Your task to perform on an android device: turn on javascript in the chrome app Image 0: 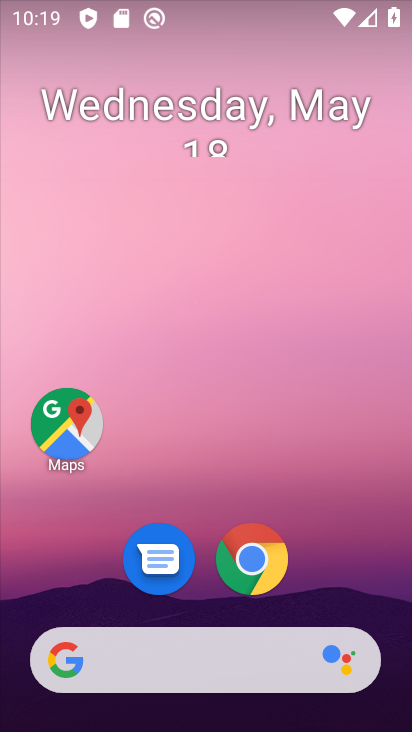
Step 0: click (253, 557)
Your task to perform on an android device: turn on javascript in the chrome app Image 1: 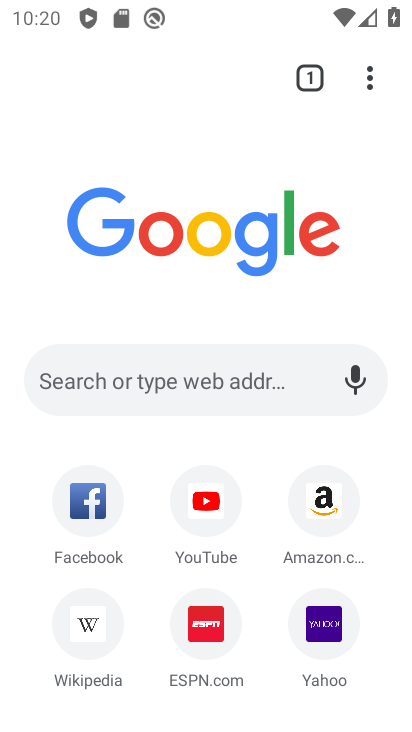
Step 1: click (370, 82)
Your task to perform on an android device: turn on javascript in the chrome app Image 2: 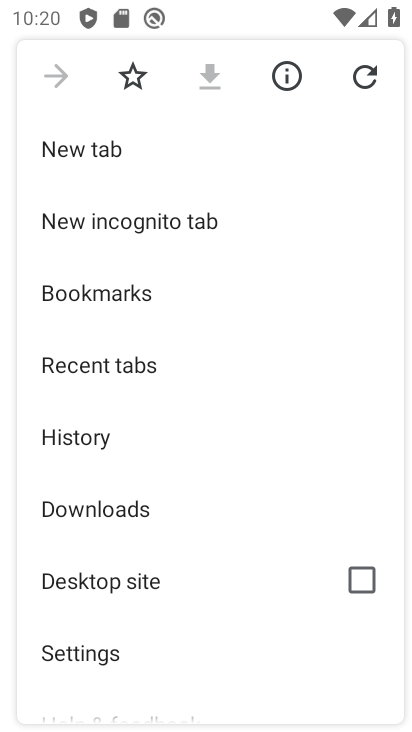
Step 2: click (85, 669)
Your task to perform on an android device: turn on javascript in the chrome app Image 3: 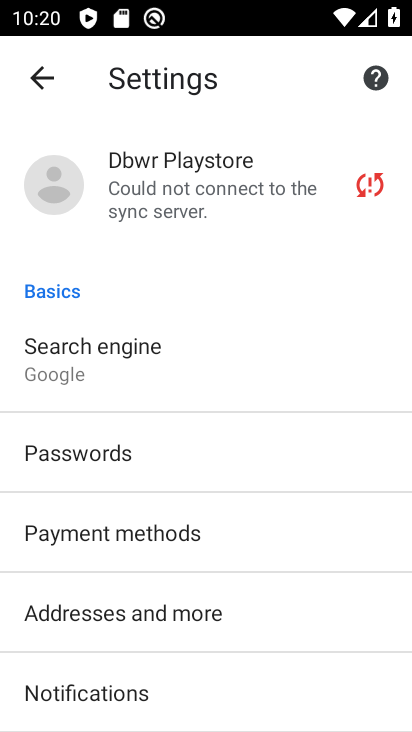
Step 3: drag from (130, 607) to (247, 177)
Your task to perform on an android device: turn on javascript in the chrome app Image 4: 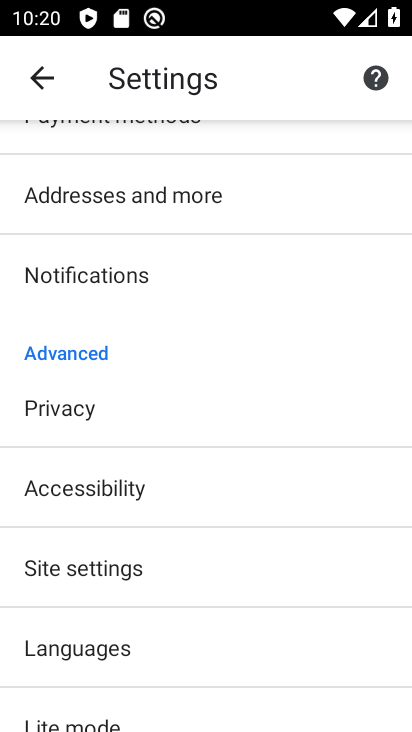
Step 4: click (91, 576)
Your task to perform on an android device: turn on javascript in the chrome app Image 5: 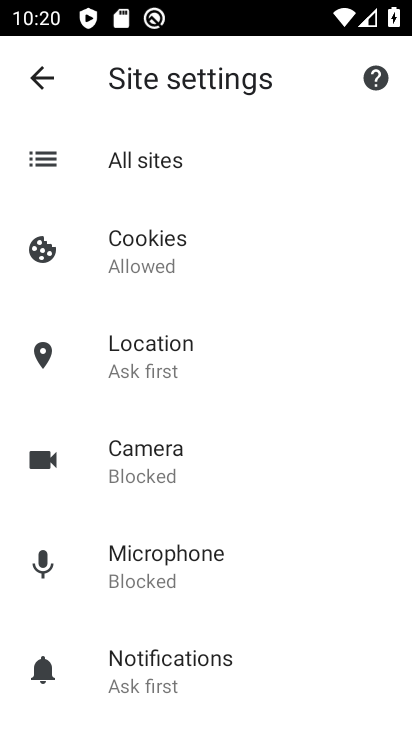
Step 5: drag from (166, 623) to (217, 259)
Your task to perform on an android device: turn on javascript in the chrome app Image 6: 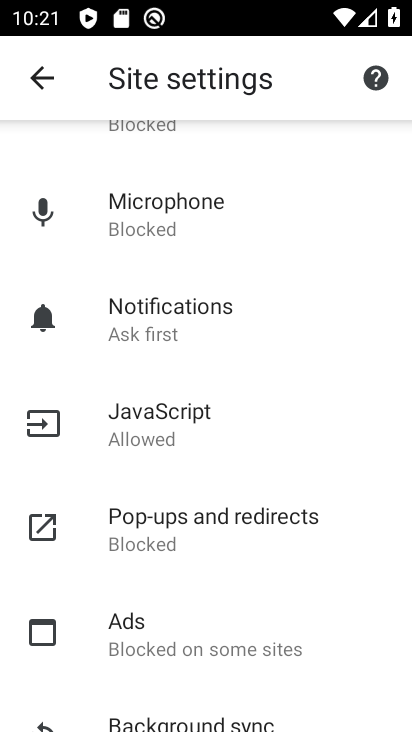
Step 6: click (182, 428)
Your task to perform on an android device: turn on javascript in the chrome app Image 7: 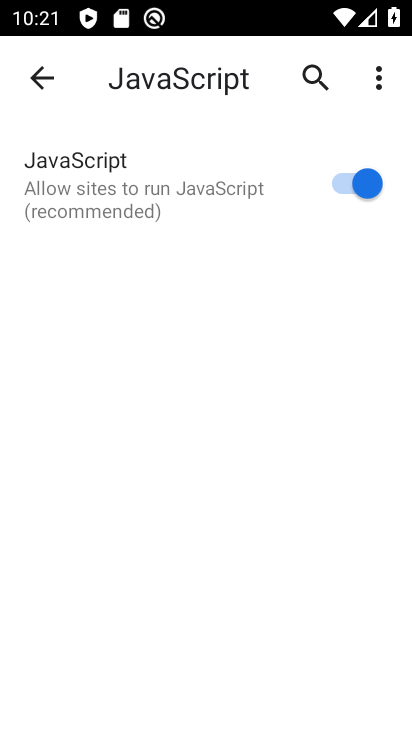
Step 7: task complete